Your task to perform on an android device: open chrome privacy settings Image 0: 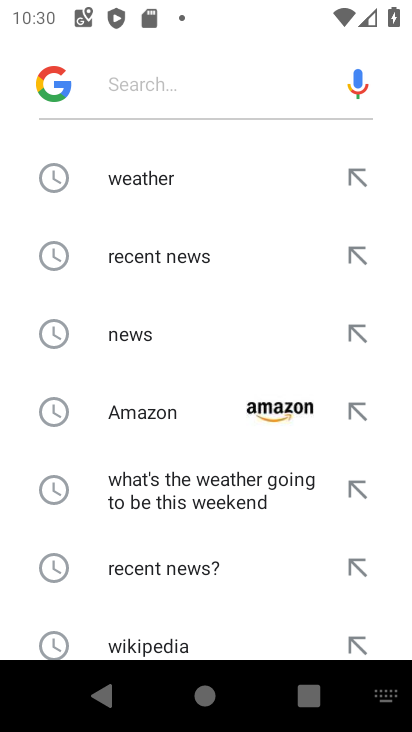
Step 0: press home button
Your task to perform on an android device: open chrome privacy settings Image 1: 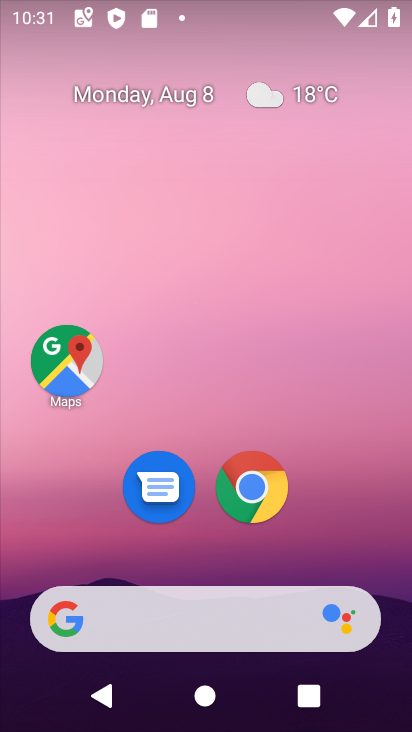
Step 1: click (251, 483)
Your task to perform on an android device: open chrome privacy settings Image 2: 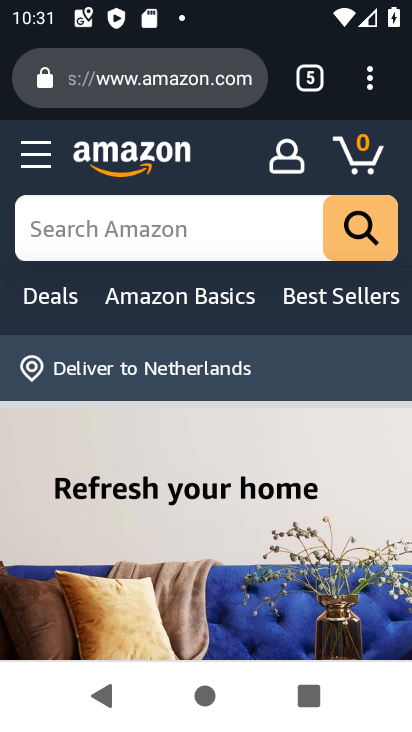
Step 2: click (371, 88)
Your task to perform on an android device: open chrome privacy settings Image 3: 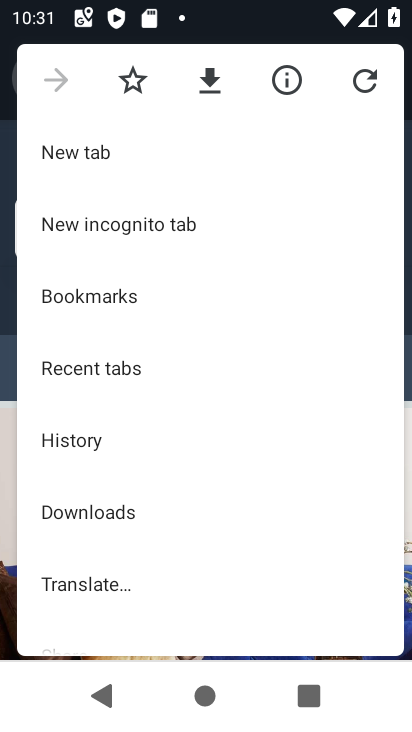
Step 3: drag from (74, 582) to (97, 284)
Your task to perform on an android device: open chrome privacy settings Image 4: 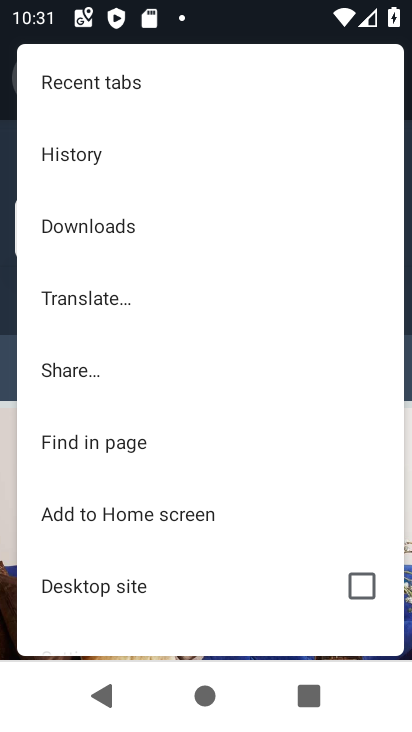
Step 4: drag from (116, 589) to (118, 215)
Your task to perform on an android device: open chrome privacy settings Image 5: 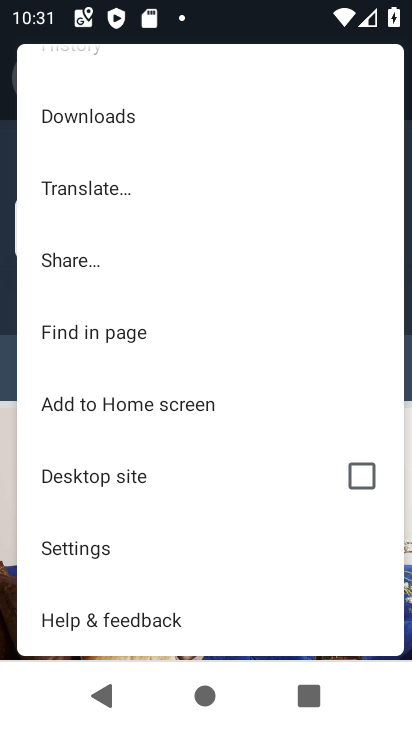
Step 5: click (80, 545)
Your task to perform on an android device: open chrome privacy settings Image 6: 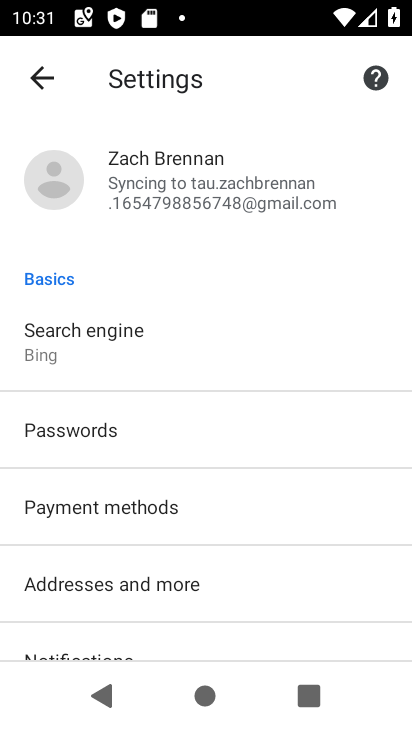
Step 6: drag from (63, 634) to (89, 371)
Your task to perform on an android device: open chrome privacy settings Image 7: 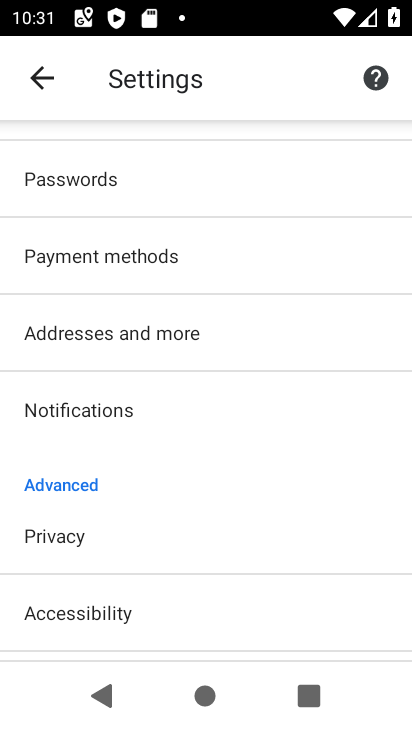
Step 7: click (57, 530)
Your task to perform on an android device: open chrome privacy settings Image 8: 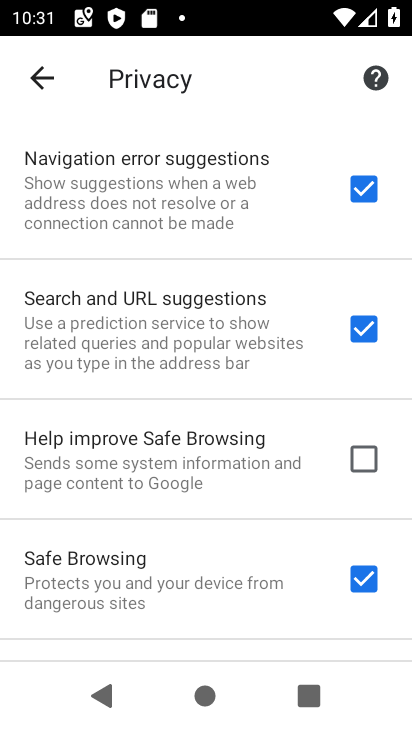
Step 8: task complete